Your task to perform on an android device: Go to privacy settings Image 0: 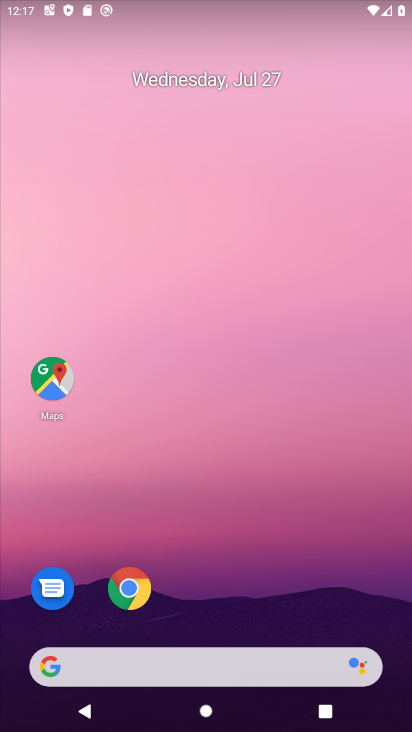
Step 0: drag from (40, 689) to (157, 194)
Your task to perform on an android device: Go to privacy settings Image 1: 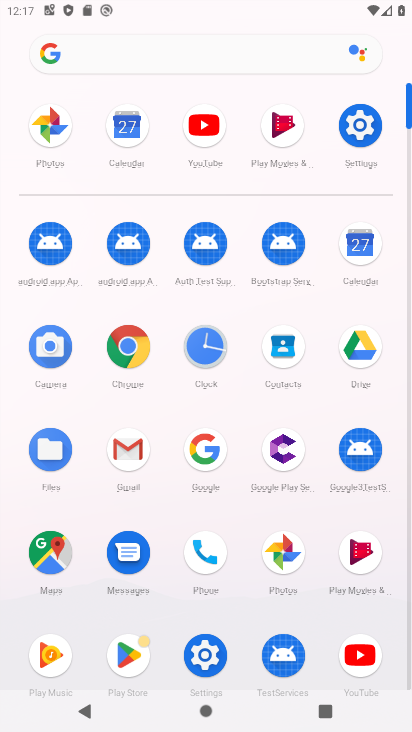
Step 1: click (207, 649)
Your task to perform on an android device: Go to privacy settings Image 2: 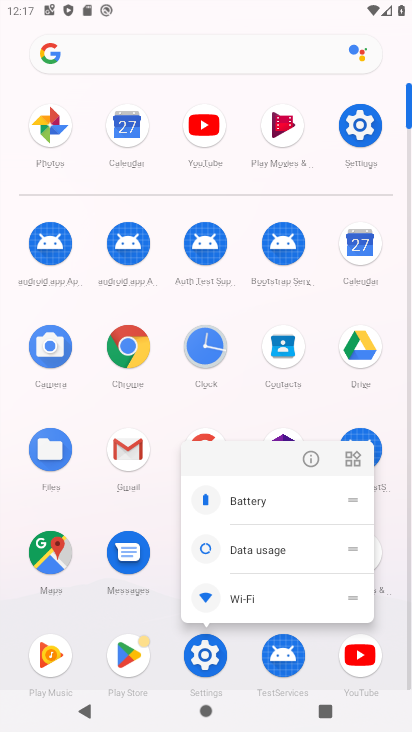
Step 2: click (201, 653)
Your task to perform on an android device: Go to privacy settings Image 3: 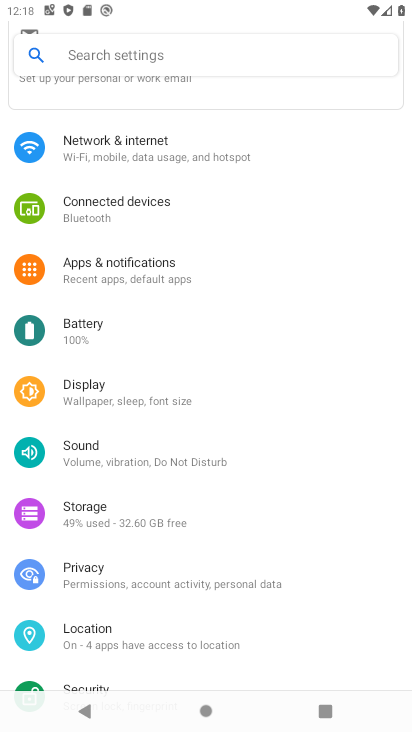
Step 3: click (84, 559)
Your task to perform on an android device: Go to privacy settings Image 4: 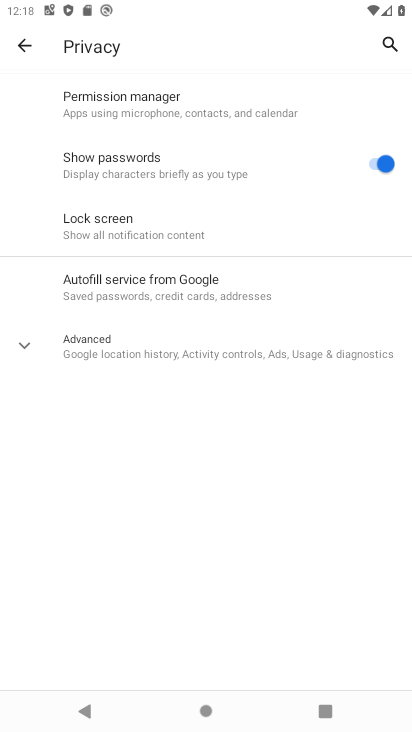
Step 4: task complete